Your task to perform on an android device: Go to Google Image 0: 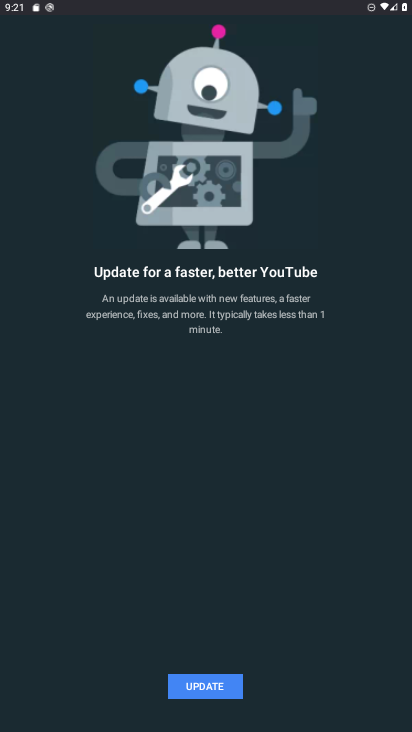
Step 0: press home button
Your task to perform on an android device: Go to Google Image 1: 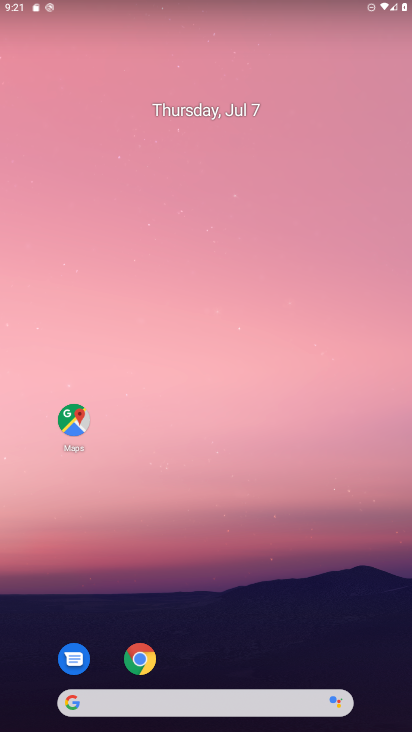
Step 1: drag from (318, 609) to (311, 159)
Your task to perform on an android device: Go to Google Image 2: 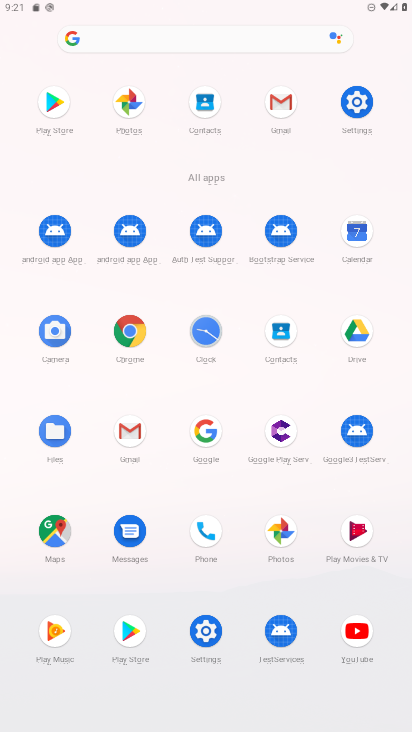
Step 2: click (204, 435)
Your task to perform on an android device: Go to Google Image 3: 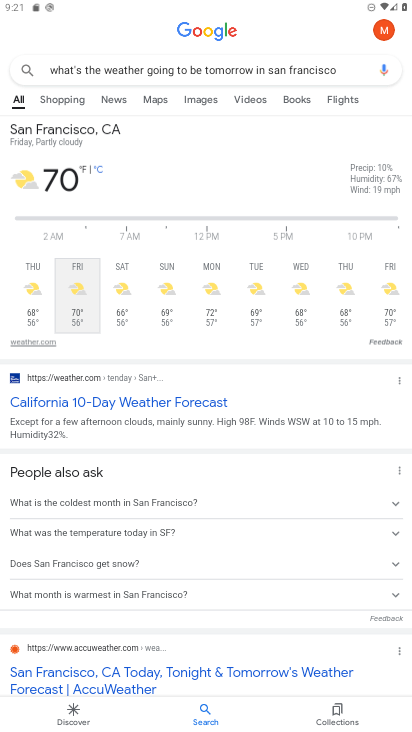
Step 3: task complete